Your task to perform on an android device: What is the recent news? Image 0: 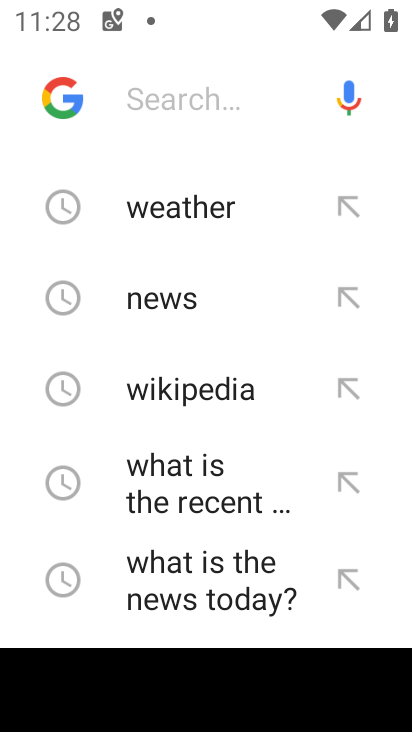
Step 0: click (205, 476)
Your task to perform on an android device: What is the recent news? Image 1: 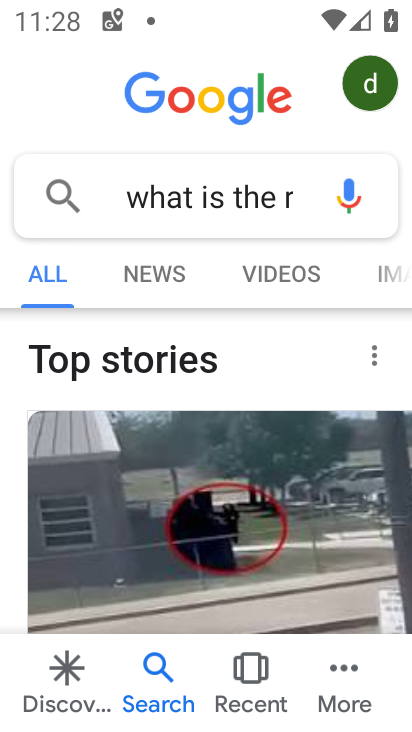
Step 1: click (156, 276)
Your task to perform on an android device: What is the recent news? Image 2: 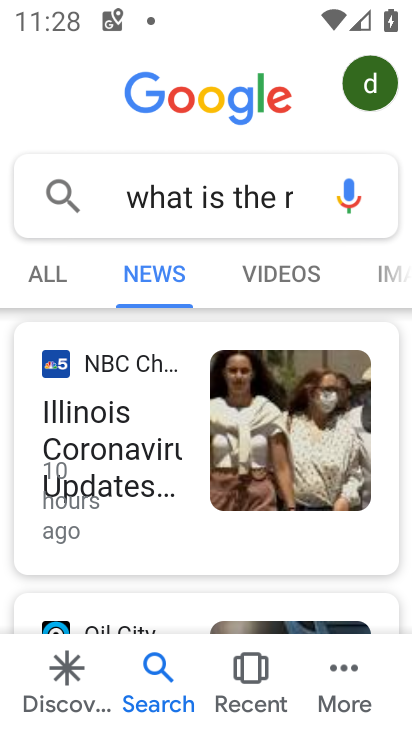
Step 2: task complete